Your task to perform on an android device: Open Youtube and go to "Your channel" Image 0: 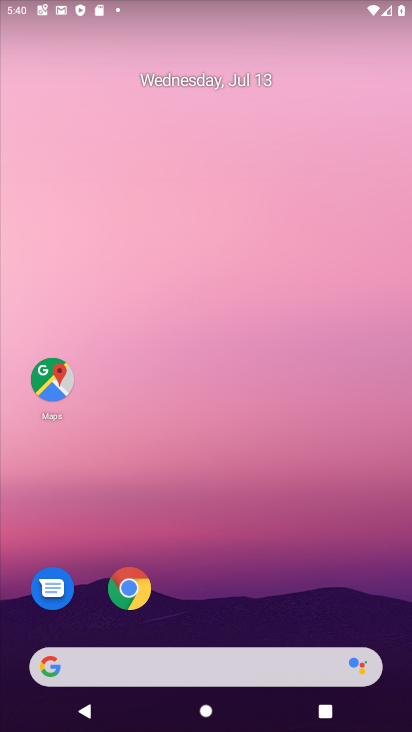
Step 0: drag from (223, 525) to (218, 18)
Your task to perform on an android device: Open Youtube and go to "Your channel" Image 1: 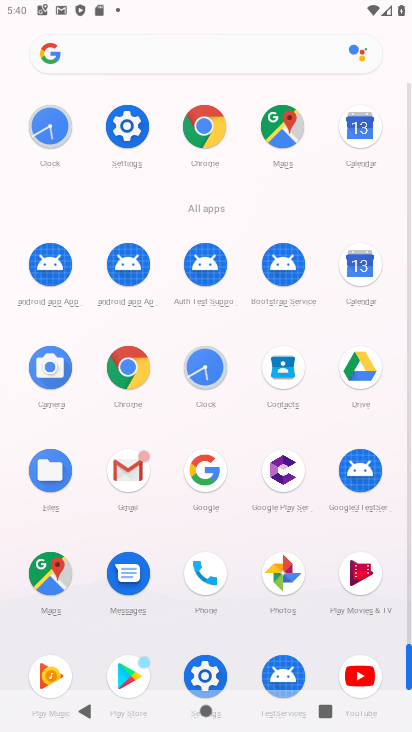
Step 1: click (367, 680)
Your task to perform on an android device: Open Youtube and go to "Your channel" Image 2: 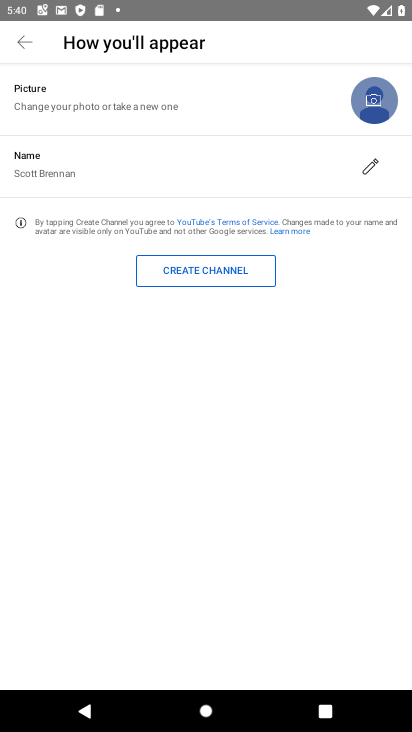
Step 2: task complete